Your task to perform on an android device: turn on the 24-hour format for clock Image 0: 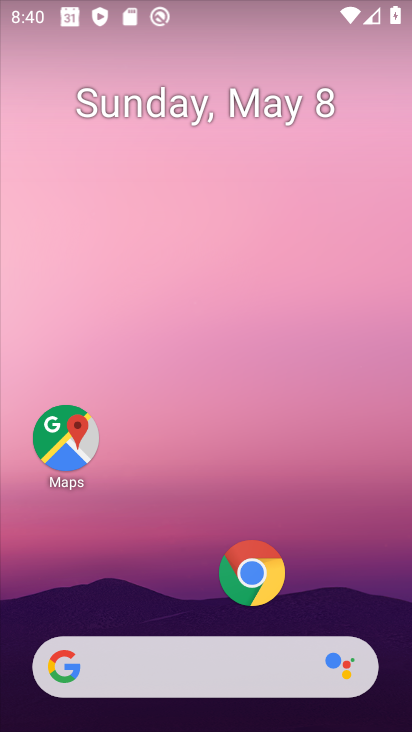
Step 0: drag from (156, 598) to (200, 233)
Your task to perform on an android device: turn on the 24-hour format for clock Image 1: 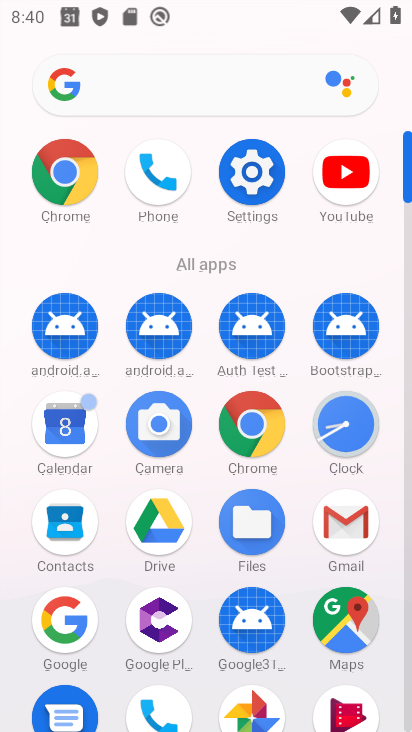
Step 1: click (347, 429)
Your task to perform on an android device: turn on the 24-hour format for clock Image 2: 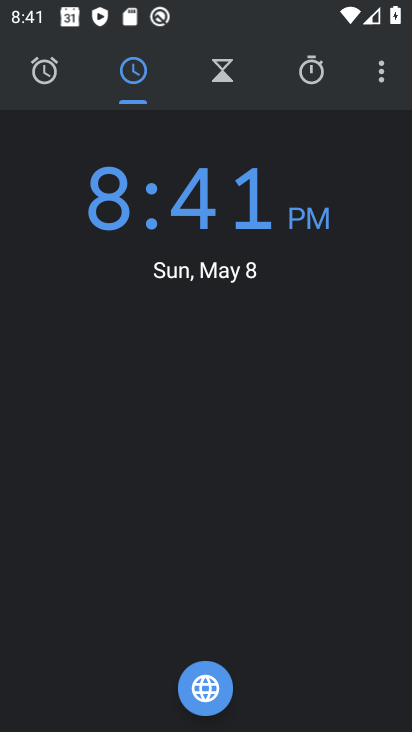
Step 2: click (384, 73)
Your task to perform on an android device: turn on the 24-hour format for clock Image 3: 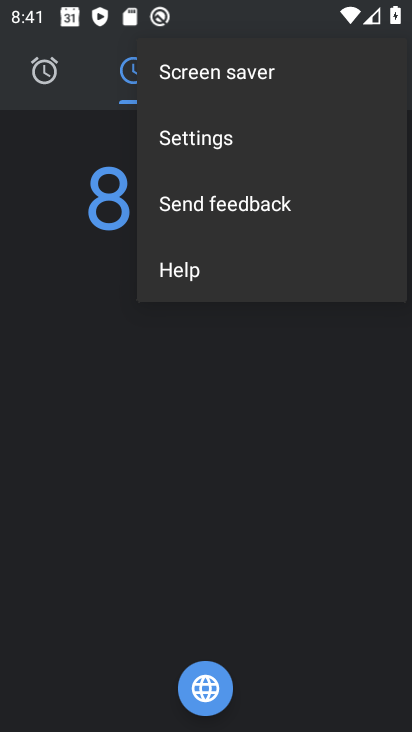
Step 3: click (182, 142)
Your task to perform on an android device: turn on the 24-hour format for clock Image 4: 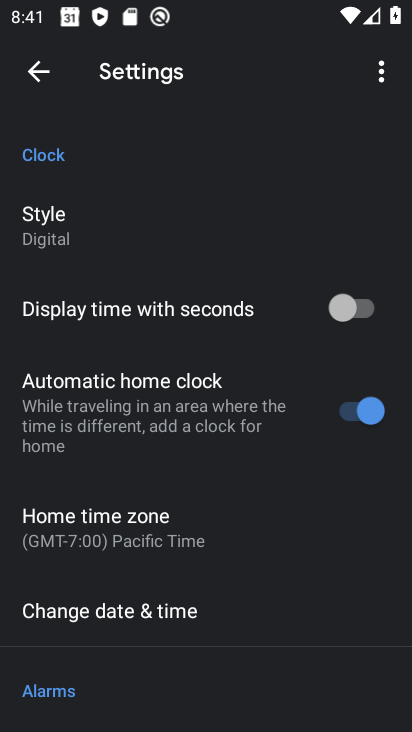
Step 4: drag from (156, 603) to (188, 208)
Your task to perform on an android device: turn on the 24-hour format for clock Image 5: 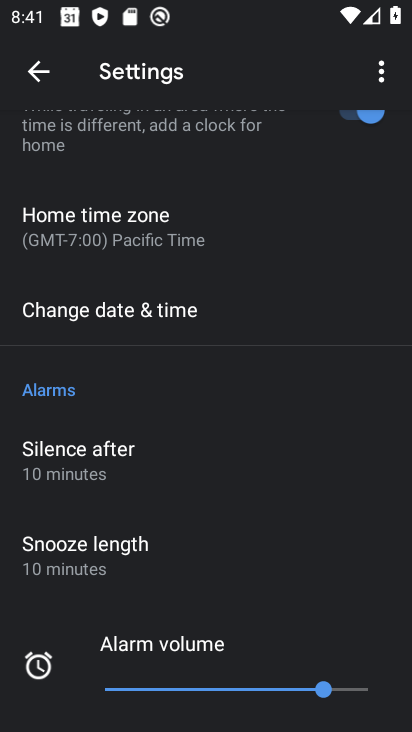
Step 5: drag from (201, 541) to (236, 557)
Your task to perform on an android device: turn on the 24-hour format for clock Image 6: 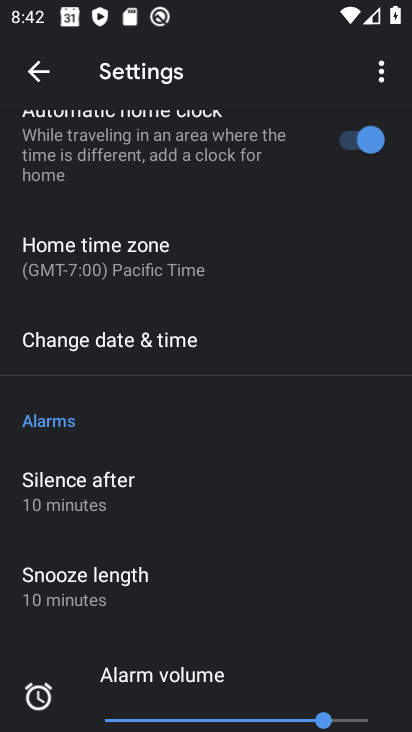
Step 6: click (126, 335)
Your task to perform on an android device: turn on the 24-hour format for clock Image 7: 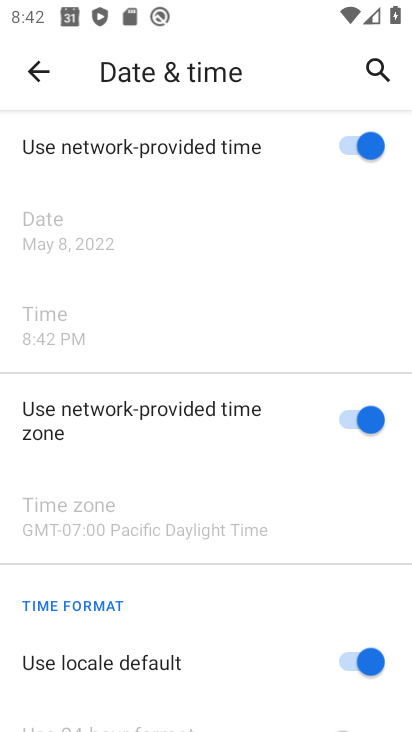
Step 7: drag from (233, 502) to (263, 249)
Your task to perform on an android device: turn on the 24-hour format for clock Image 8: 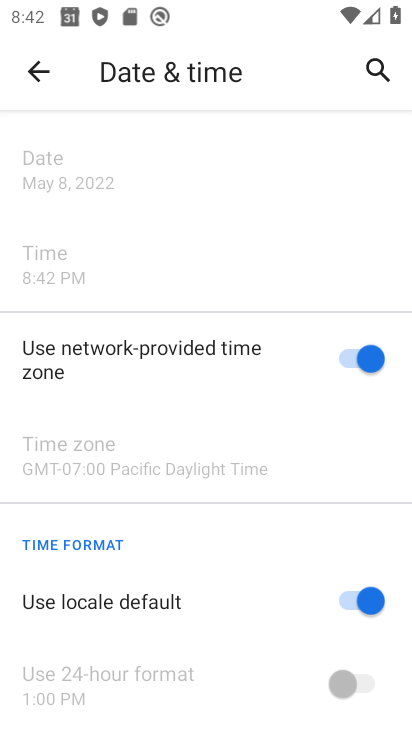
Step 8: click (352, 679)
Your task to perform on an android device: turn on the 24-hour format for clock Image 9: 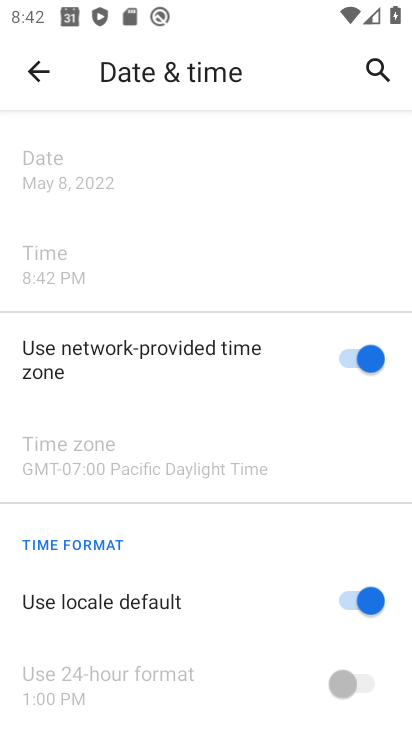
Step 9: click (350, 609)
Your task to perform on an android device: turn on the 24-hour format for clock Image 10: 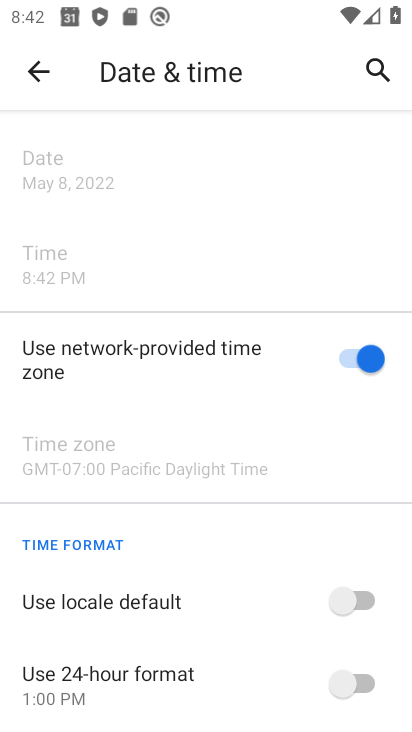
Step 10: click (361, 681)
Your task to perform on an android device: turn on the 24-hour format for clock Image 11: 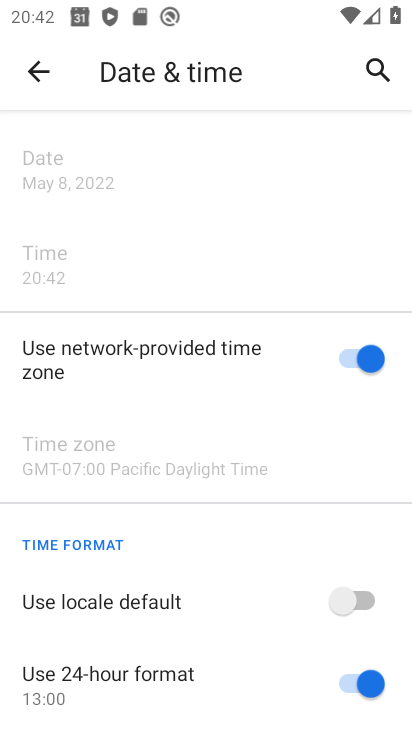
Step 11: task complete